Your task to perform on an android device: manage bookmarks in the chrome app Image 0: 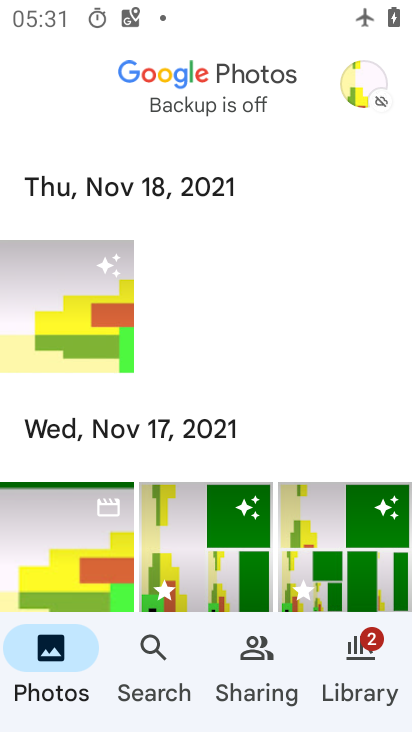
Step 0: press home button
Your task to perform on an android device: manage bookmarks in the chrome app Image 1: 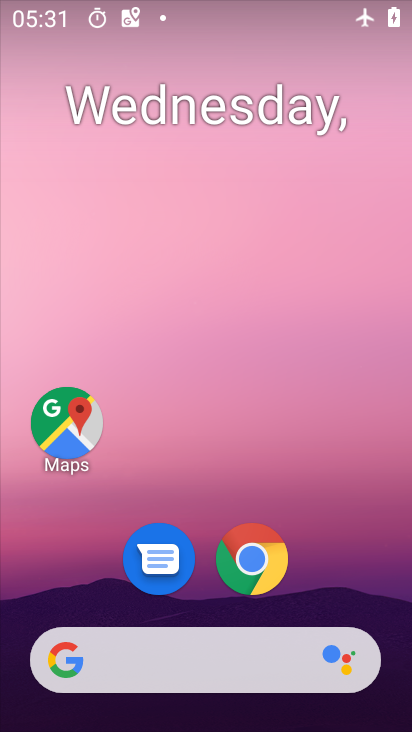
Step 1: click (263, 563)
Your task to perform on an android device: manage bookmarks in the chrome app Image 2: 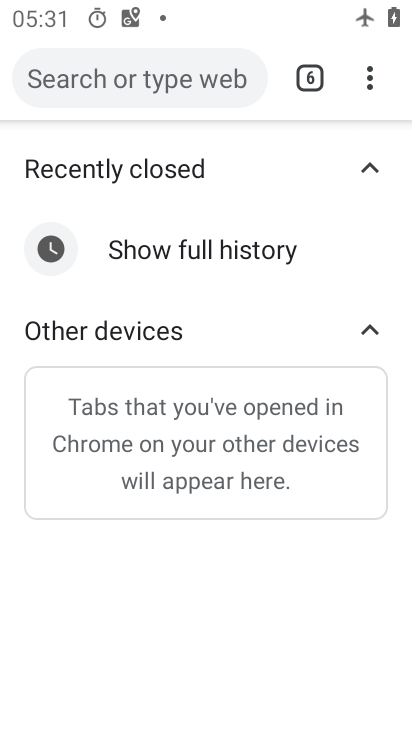
Step 2: click (378, 75)
Your task to perform on an android device: manage bookmarks in the chrome app Image 3: 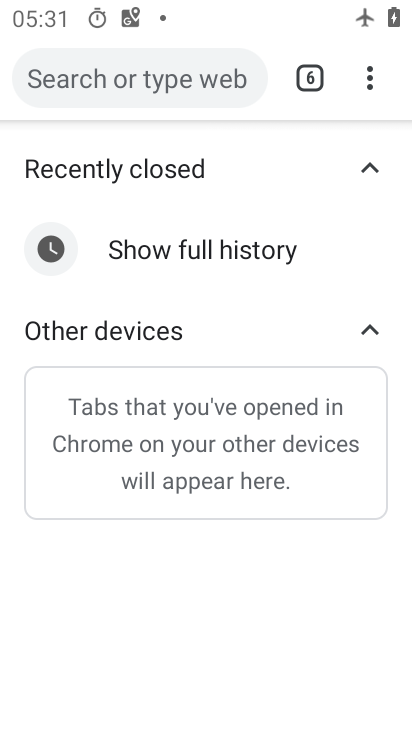
Step 3: click (358, 95)
Your task to perform on an android device: manage bookmarks in the chrome app Image 4: 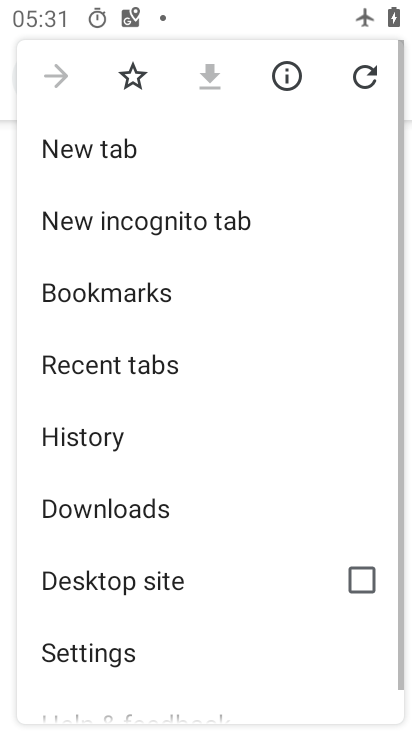
Step 4: click (108, 302)
Your task to perform on an android device: manage bookmarks in the chrome app Image 5: 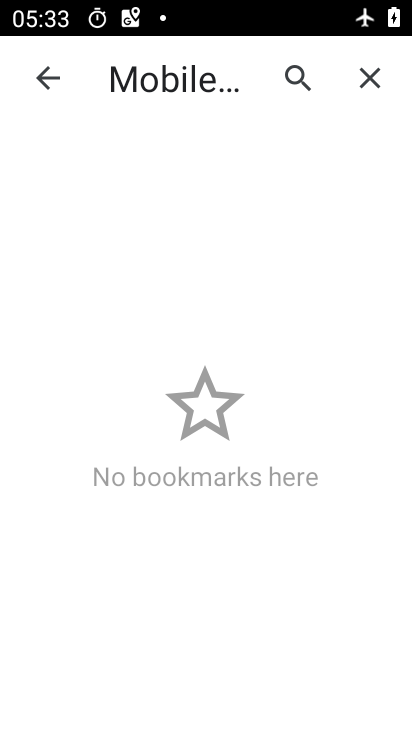
Step 5: task complete